Your task to perform on an android device: check the backup settings in the google photos Image 0: 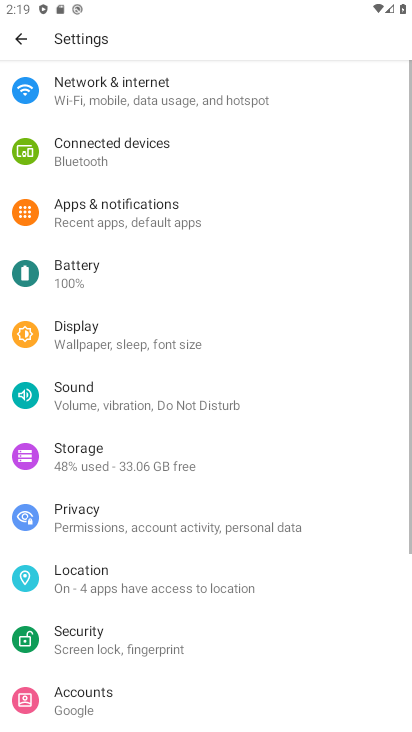
Step 0: press home button
Your task to perform on an android device: check the backup settings in the google photos Image 1: 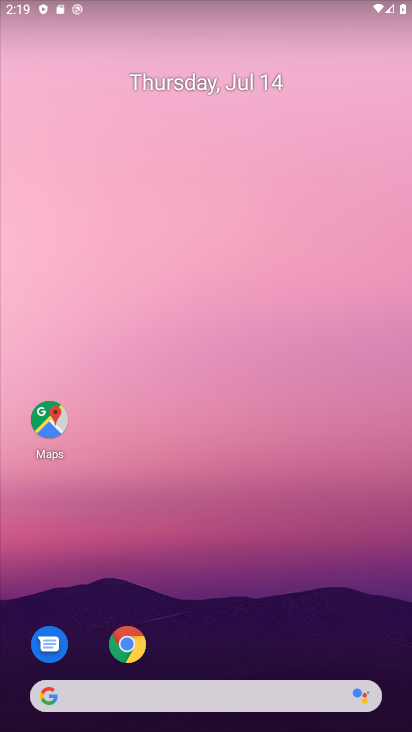
Step 1: drag from (250, 642) to (218, 85)
Your task to perform on an android device: check the backup settings in the google photos Image 2: 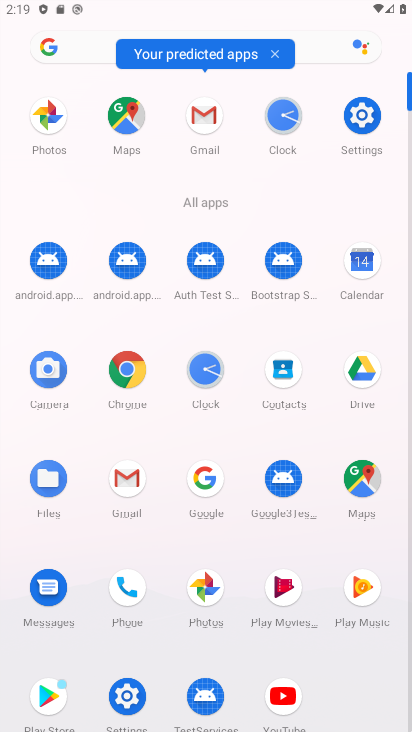
Step 2: click (210, 589)
Your task to perform on an android device: check the backup settings in the google photos Image 3: 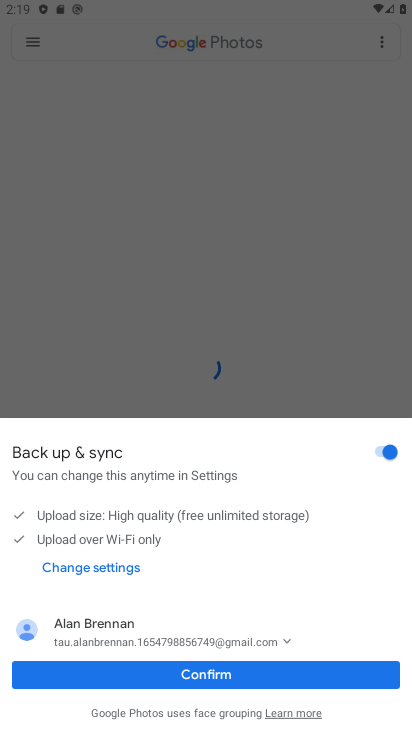
Step 3: click (254, 675)
Your task to perform on an android device: check the backup settings in the google photos Image 4: 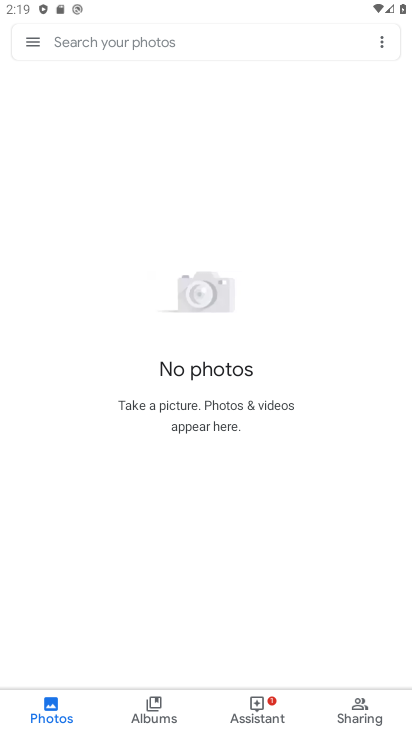
Step 4: click (30, 42)
Your task to perform on an android device: check the backup settings in the google photos Image 5: 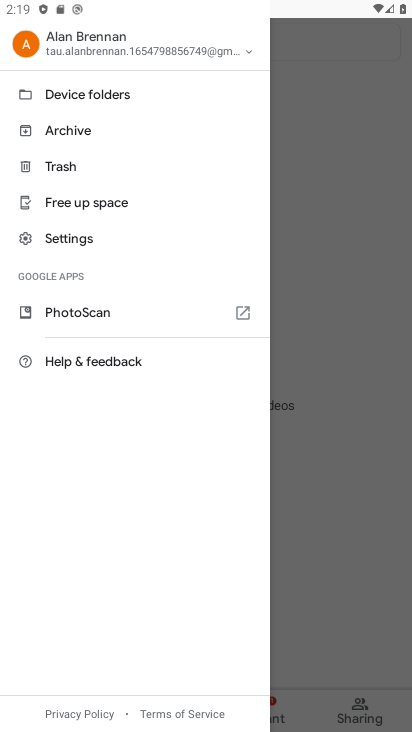
Step 5: click (91, 235)
Your task to perform on an android device: check the backup settings in the google photos Image 6: 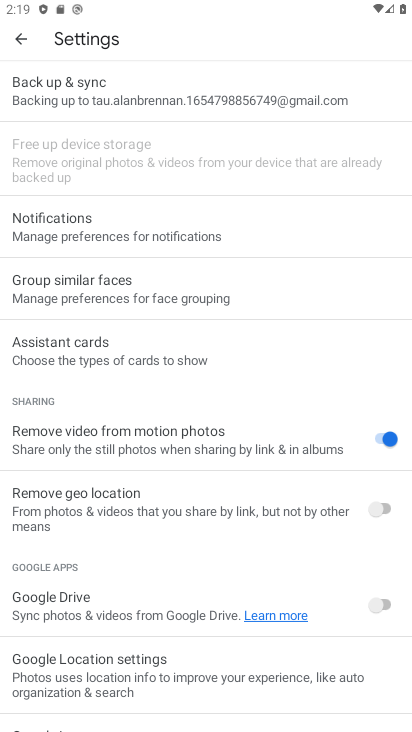
Step 6: click (179, 105)
Your task to perform on an android device: check the backup settings in the google photos Image 7: 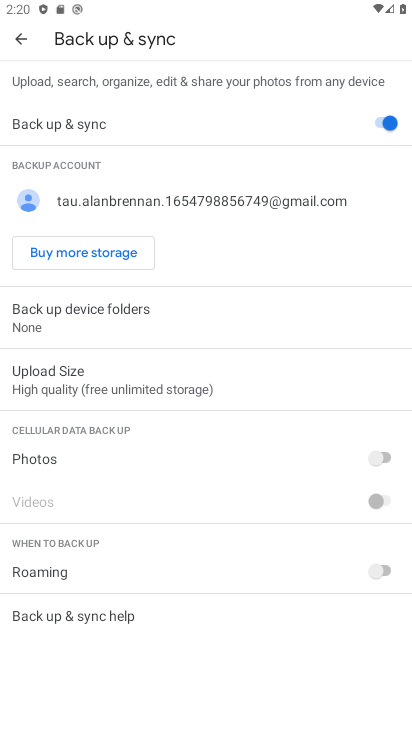
Step 7: task complete